Your task to perform on an android device: turn on the 24-hour format for clock Image 0: 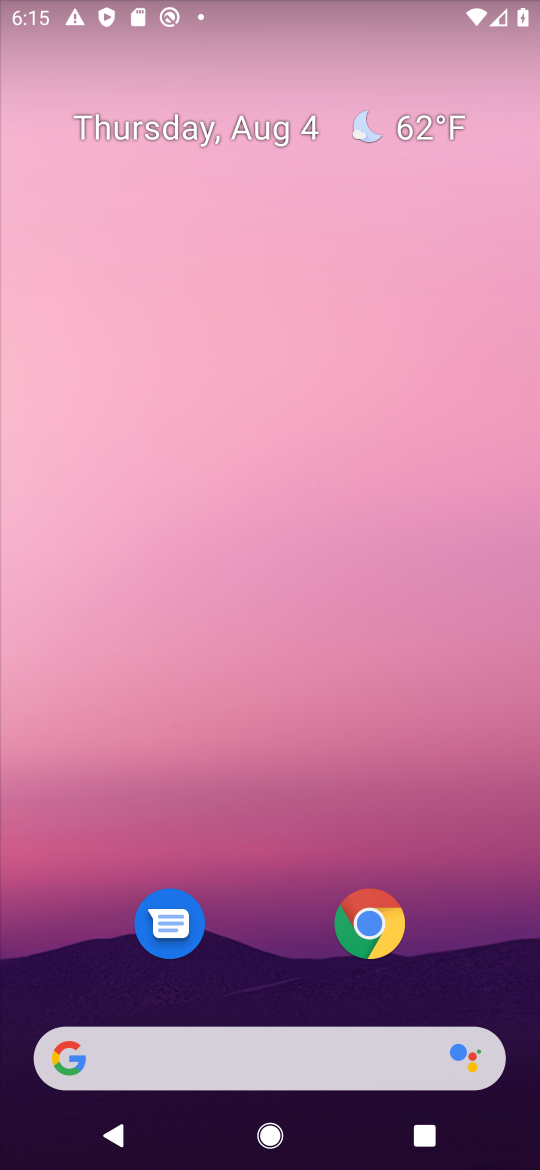
Step 0: drag from (312, 939) to (256, 250)
Your task to perform on an android device: turn on the 24-hour format for clock Image 1: 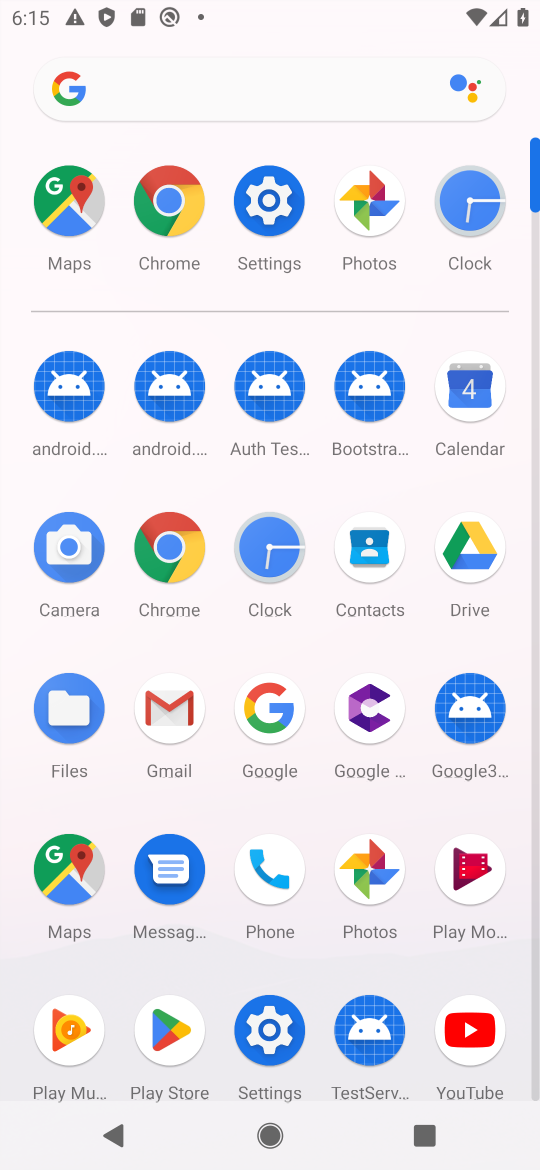
Step 1: click (485, 210)
Your task to perform on an android device: turn on the 24-hour format for clock Image 2: 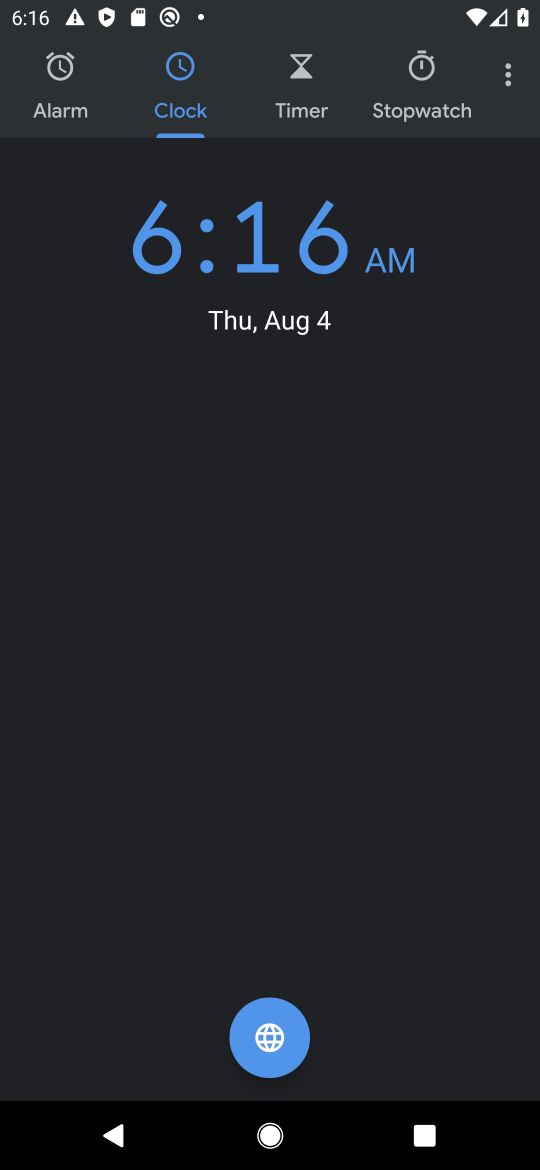
Step 2: click (503, 88)
Your task to perform on an android device: turn on the 24-hour format for clock Image 3: 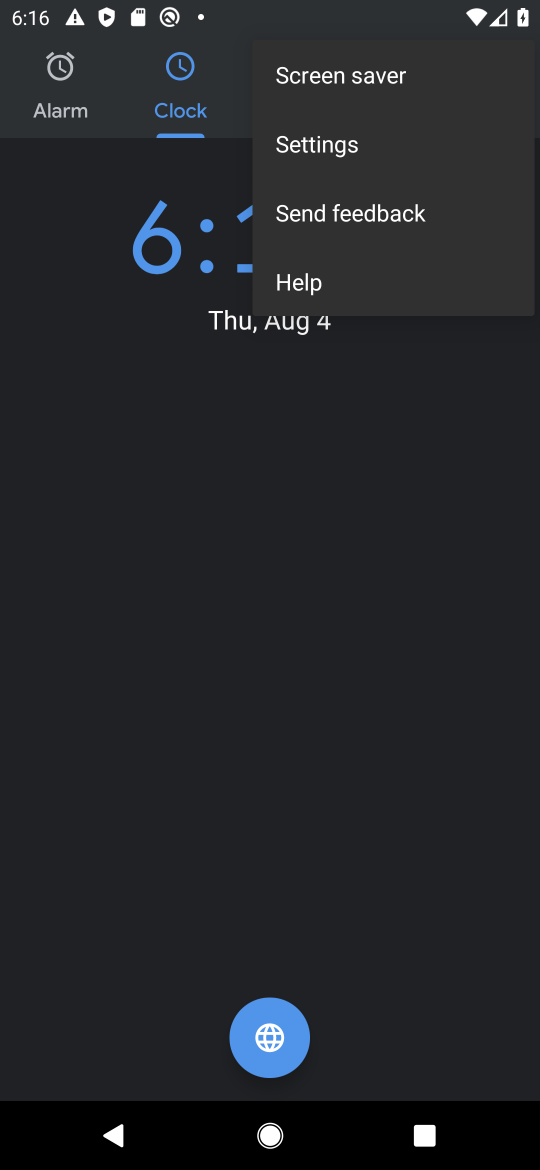
Step 3: click (331, 151)
Your task to perform on an android device: turn on the 24-hour format for clock Image 4: 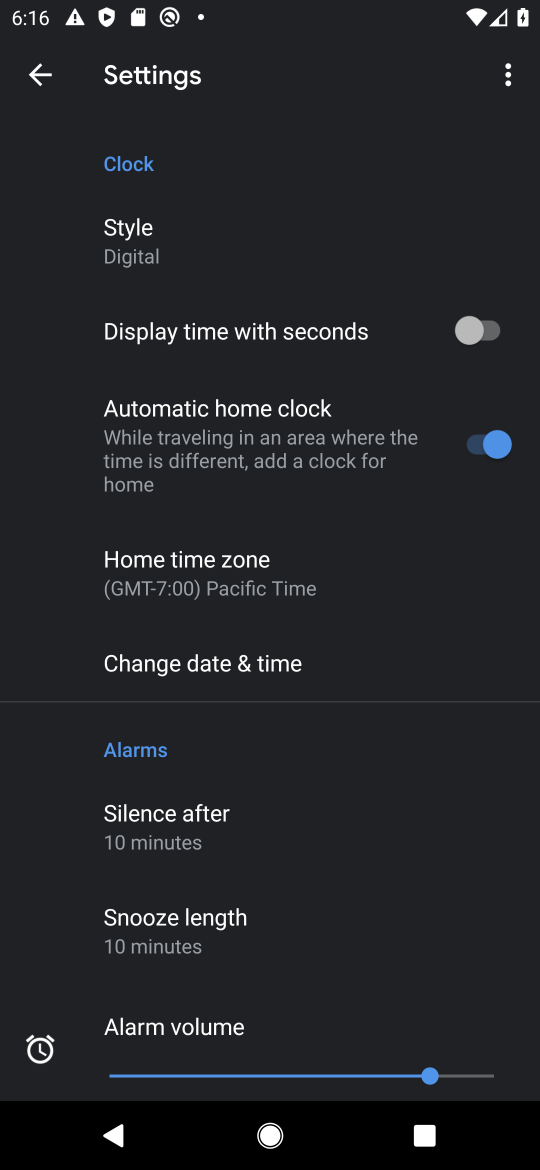
Step 4: drag from (440, 917) to (397, 506)
Your task to perform on an android device: turn on the 24-hour format for clock Image 5: 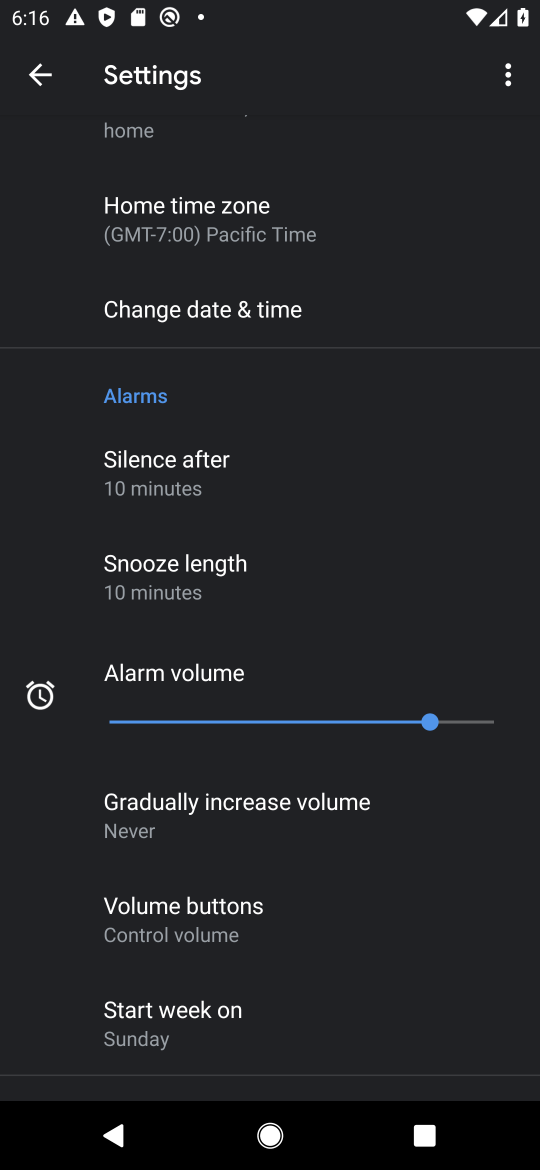
Step 5: drag from (405, 959) to (355, 438)
Your task to perform on an android device: turn on the 24-hour format for clock Image 6: 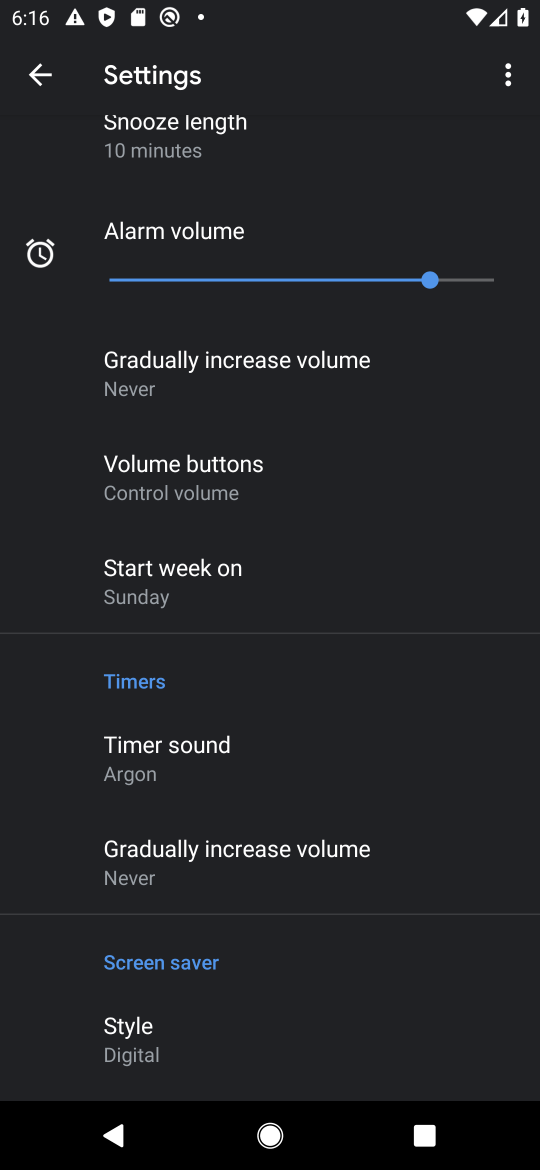
Step 6: drag from (385, 955) to (354, 424)
Your task to perform on an android device: turn on the 24-hour format for clock Image 7: 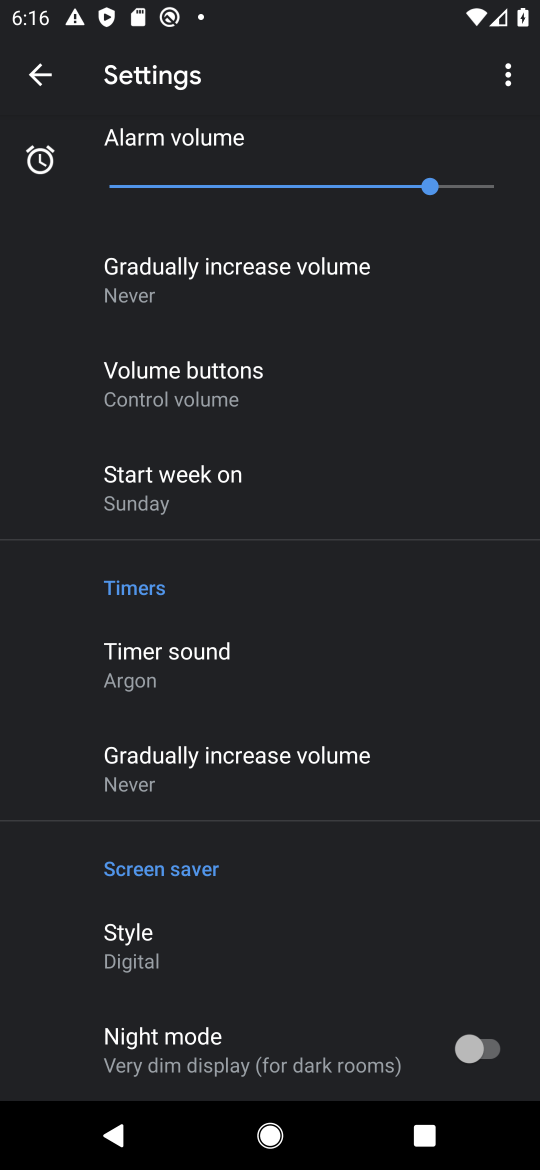
Step 7: drag from (384, 941) to (287, 438)
Your task to perform on an android device: turn on the 24-hour format for clock Image 8: 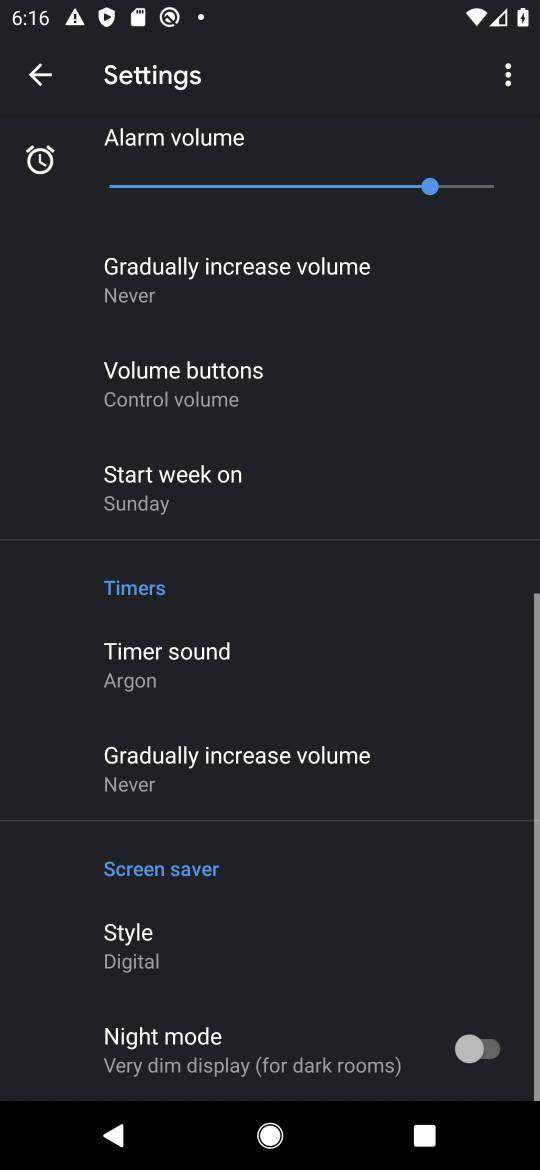
Step 8: drag from (279, 313) to (337, 861)
Your task to perform on an android device: turn on the 24-hour format for clock Image 9: 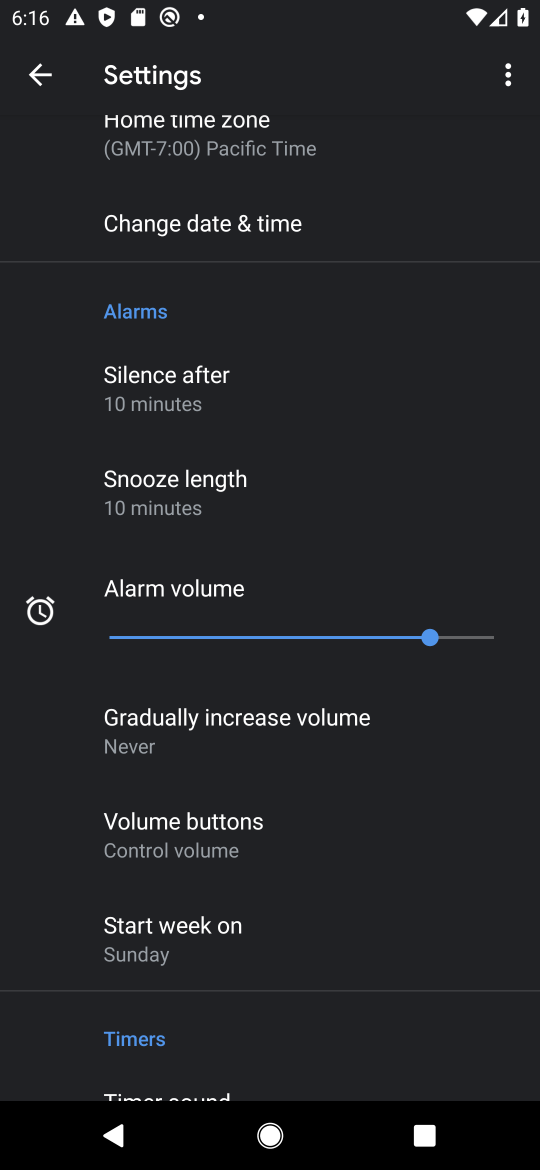
Step 9: click (225, 228)
Your task to perform on an android device: turn on the 24-hour format for clock Image 10: 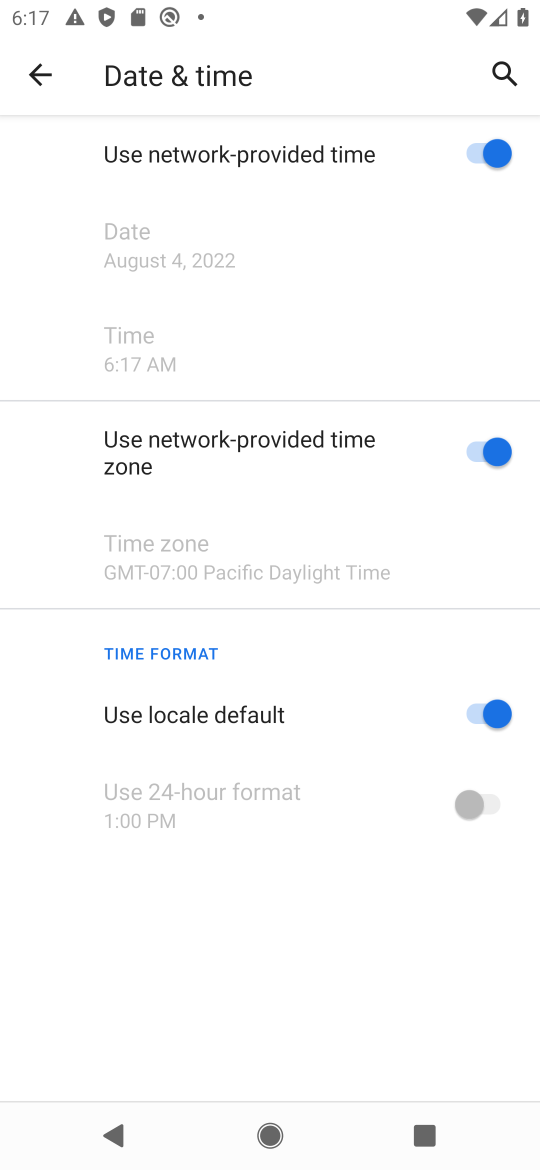
Step 10: click (493, 719)
Your task to perform on an android device: turn on the 24-hour format for clock Image 11: 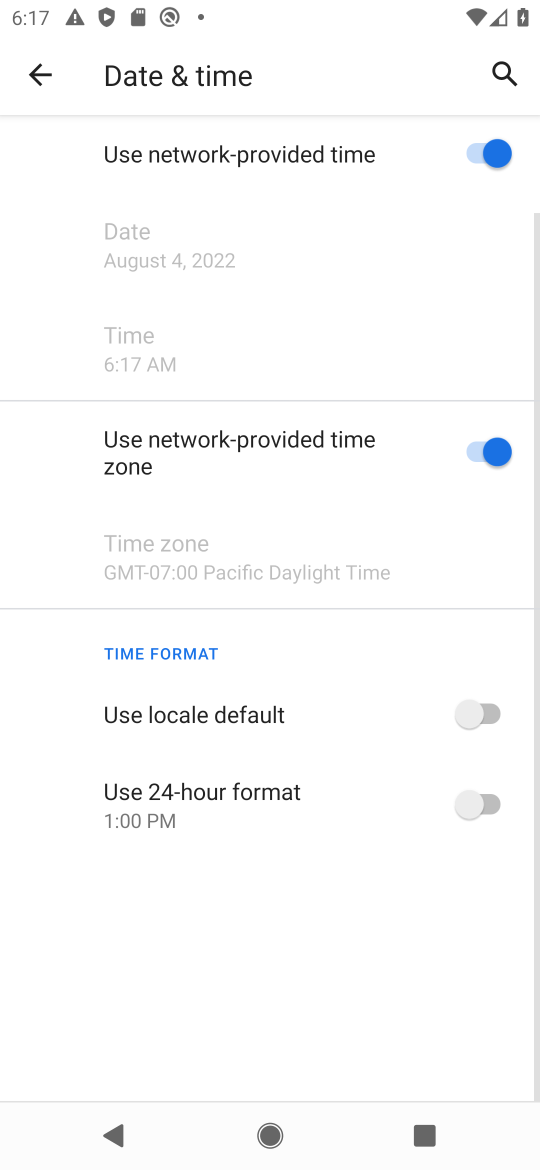
Step 11: click (480, 809)
Your task to perform on an android device: turn on the 24-hour format for clock Image 12: 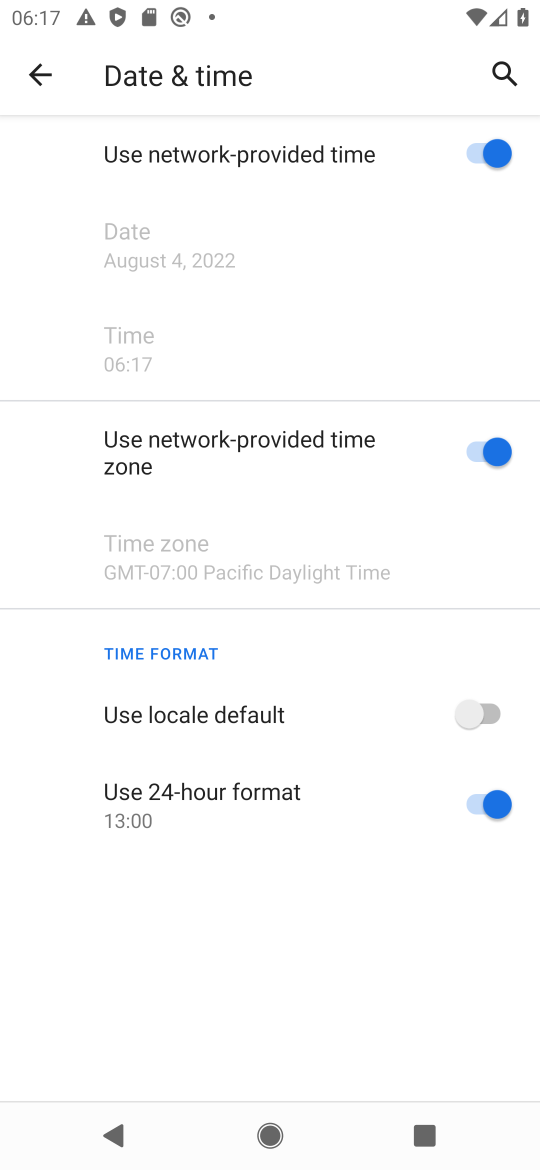
Step 12: task complete